Your task to perform on an android device: allow cookies in the chrome app Image 0: 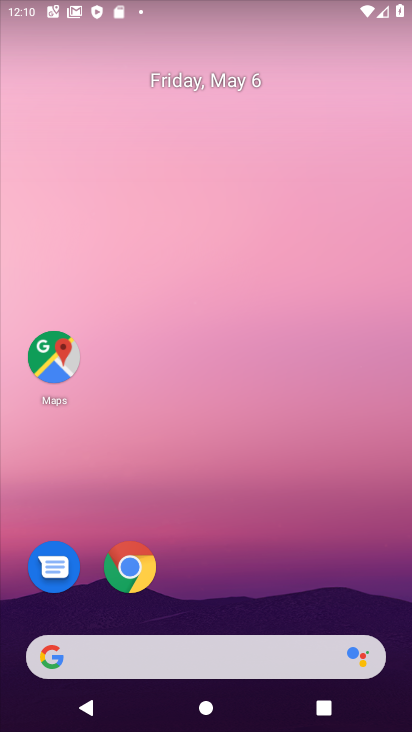
Step 0: click (129, 567)
Your task to perform on an android device: allow cookies in the chrome app Image 1: 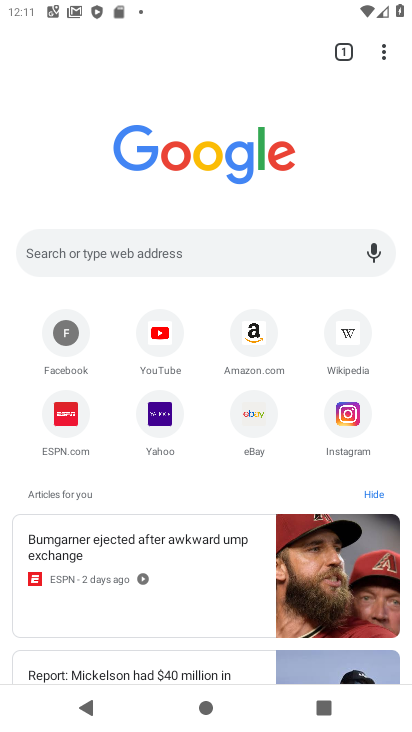
Step 1: click (383, 53)
Your task to perform on an android device: allow cookies in the chrome app Image 2: 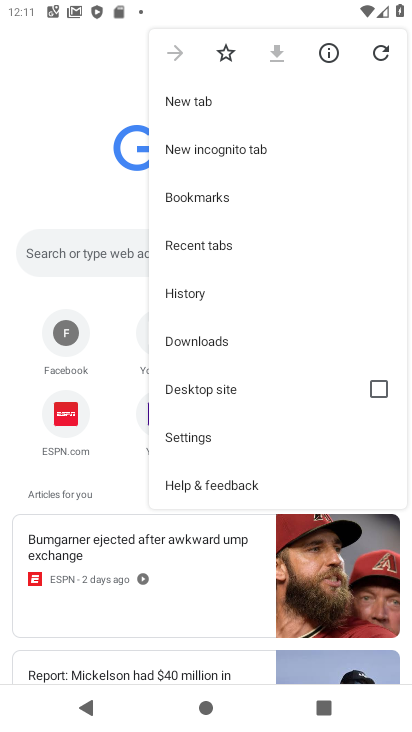
Step 2: click (190, 439)
Your task to perform on an android device: allow cookies in the chrome app Image 3: 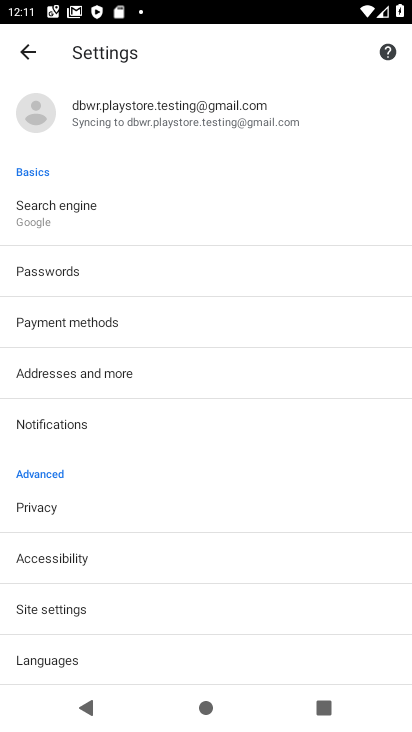
Step 3: click (74, 609)
Your task to perform on an android device: allow cookies in the chrome app Image 4: 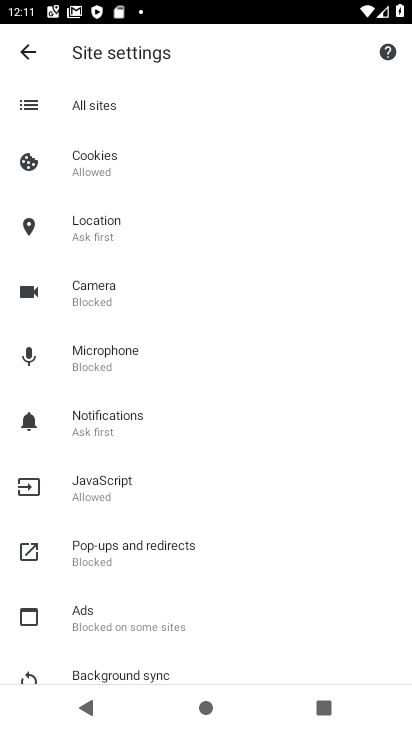
Step 4: click (107, 165)
Your task to perform on an android device: allow cookies in the chrome app Image 5: 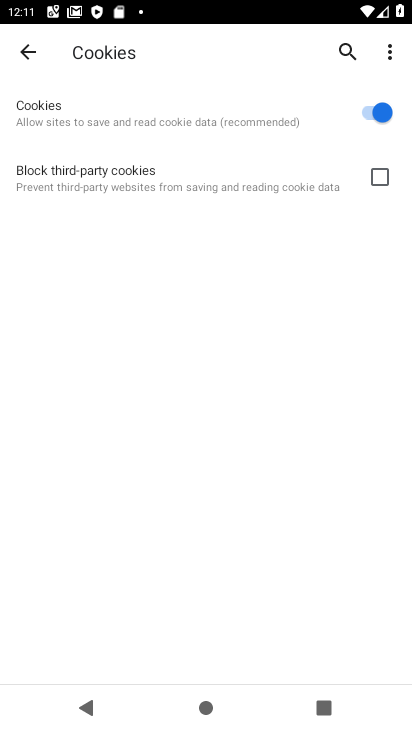
Step 5: click (388, 181)
Your task to perform on an android device: allow cookies in the chrome app Image 6: 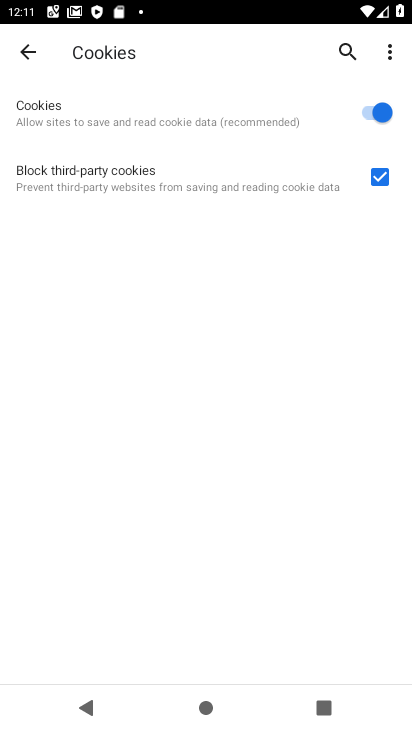
Step 6: task complete